Your task to perform on an android device: toggle javascript in the chrome app Image 0: 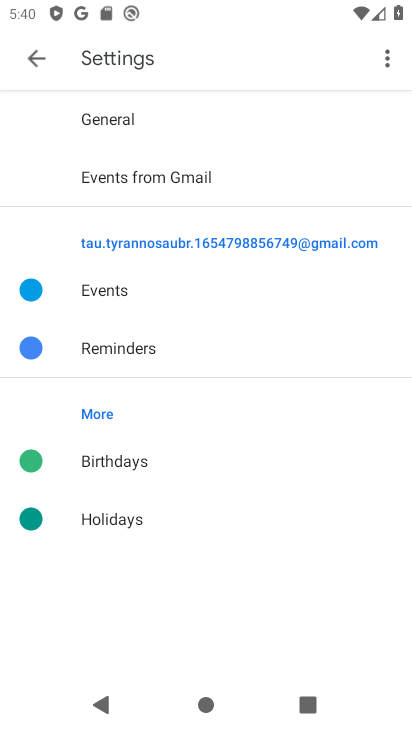
Step 0: press home button
Your task to perform on an android device: toggle javascript in the chrome app Image 1: 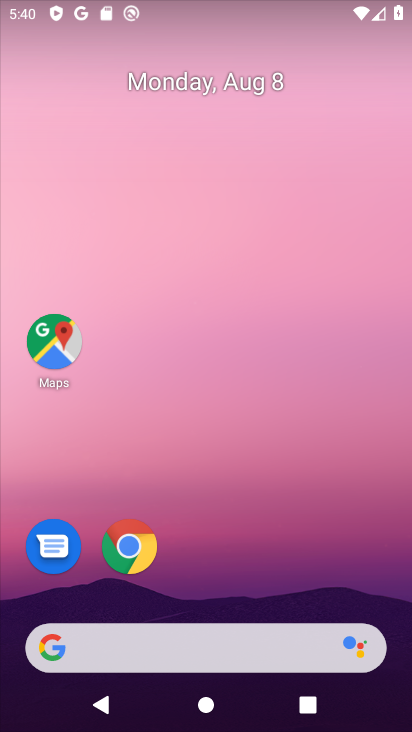
Step 1: click (147, 550)
Your task to perform on an android device: toggle javascript in the chrome app Image 2: 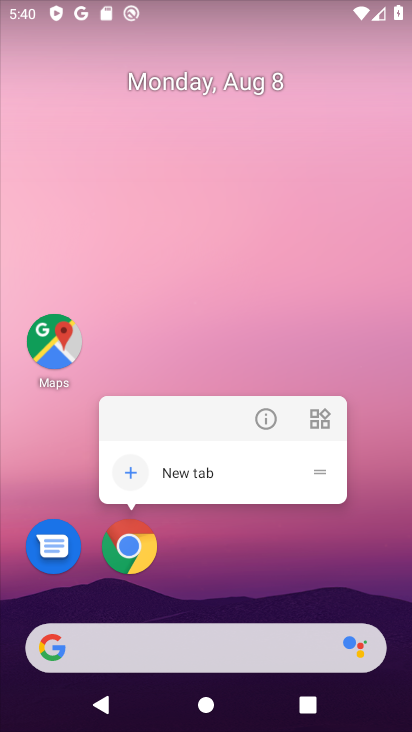
Step 2: click (147, 550)
Your task to perform on an android device: toggle javascript in the chrome app Image 3: 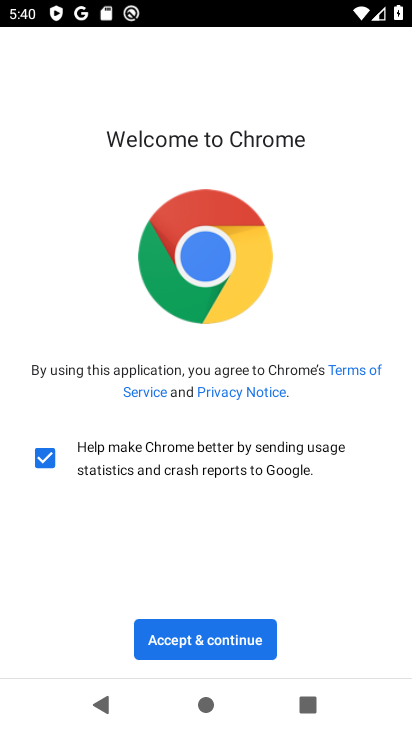
Step 3: click (207, 635)
Your task to perform on an android device: toggle javascript in the chrome app Image 4: 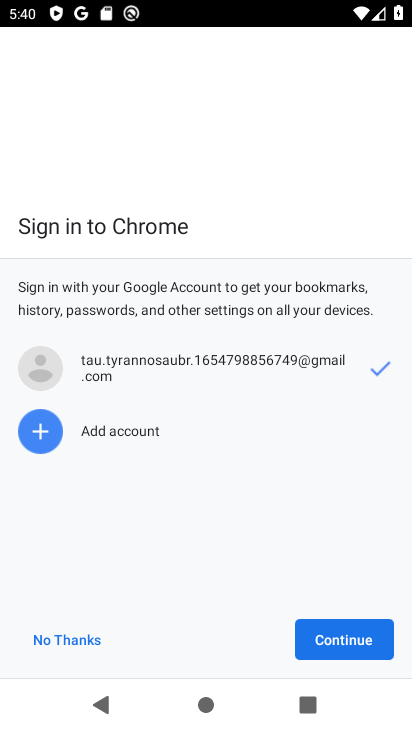
Step 4: click (337, 626)
Your task to perform on an android device: toggle javascript in the chrome app Image 5: 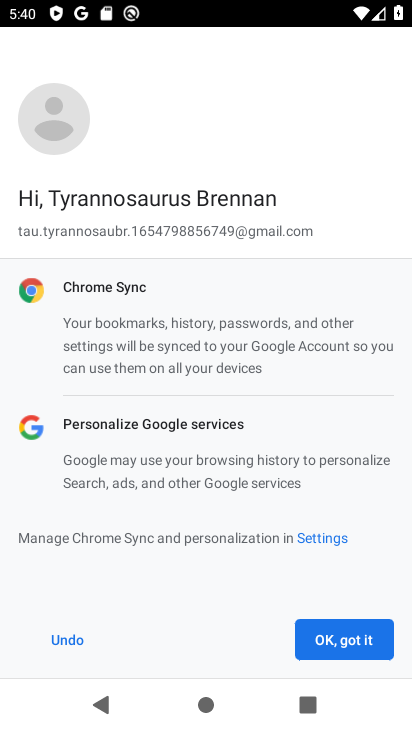
Step 5: click (346, 622)
Your task to perform on an android device: toggle javascript in the chrome app Image 6: 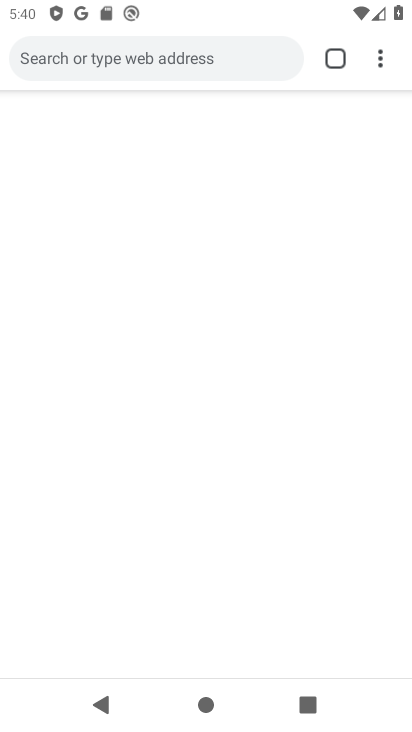
Step 6: click (372, 64)
Your task to perform on an android device: toggle javascript in the chrome app Image 7: 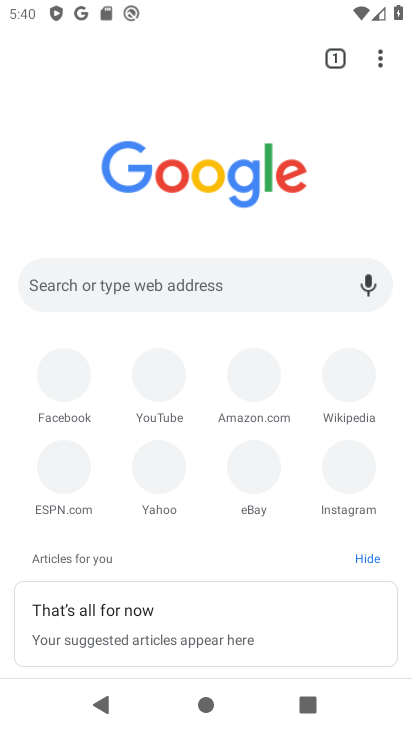
Step 7: click (380, 63)
Your task to perform on an android device: toggle javascript in the chrome app Image 8: 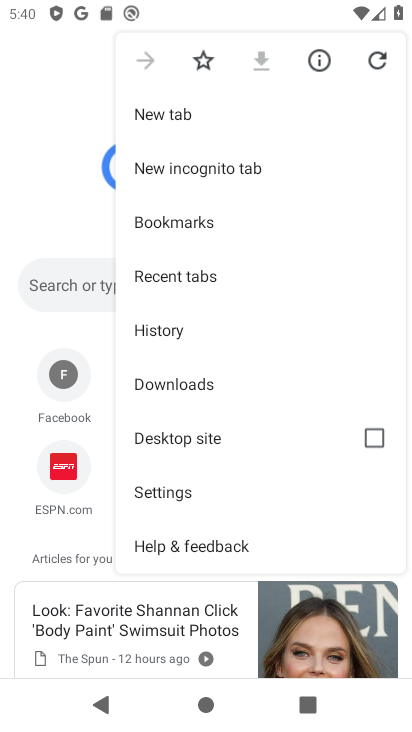
Step 8: click (161, 487)
Your task to perform on an android device: toggle javascript in the chrome app Image 9: 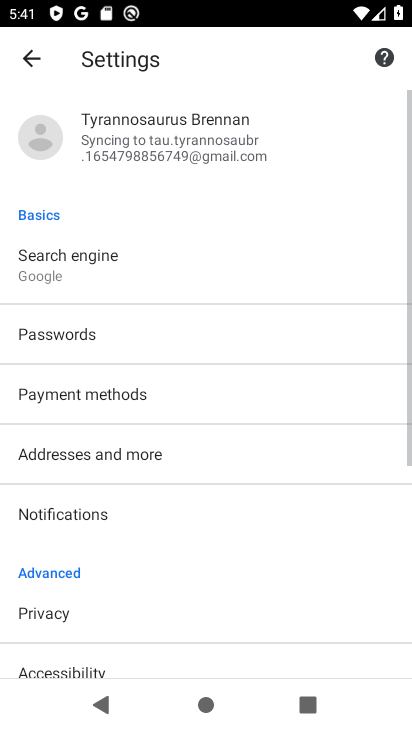
Step 9: click (197, 207)
Your task to perform on an android device: toggle javascript in the chrome app Image 10: 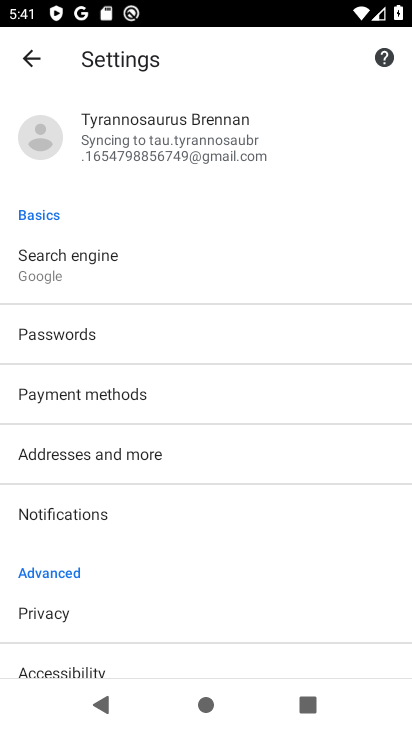
Step 10: drag from (177, 610) to (196, 203)
Your task to perform on an android device: toggle javascript in the chrome app Image 11: 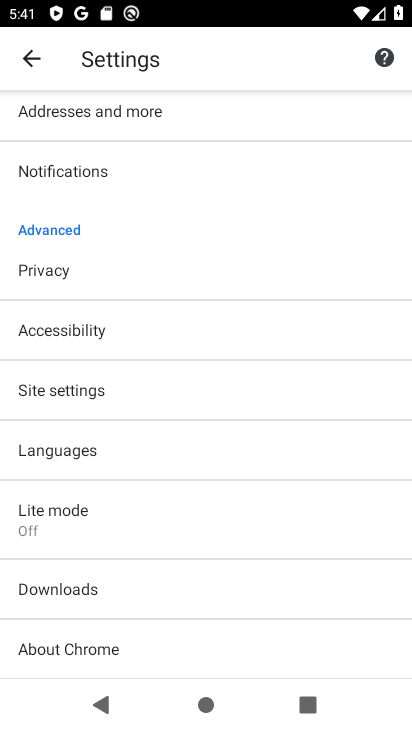
Step 11: click (85, 400)
Your task to perform on an android device: toggle javascript in the chrome app Image 12: 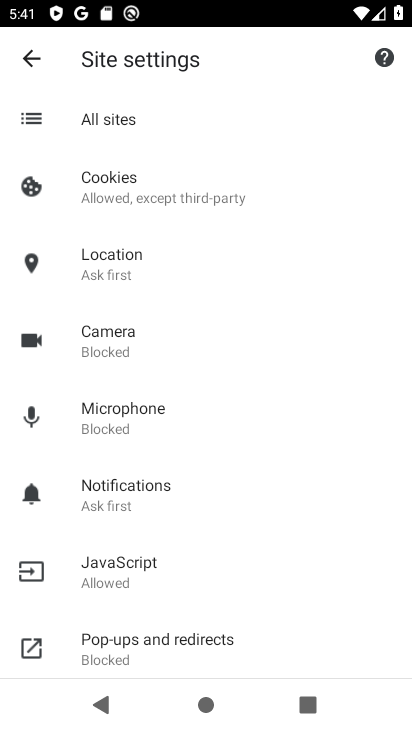
Step 12: click (137, 564)
Your task to perform on an android device: toggle javascript in the chrome app Image 13: 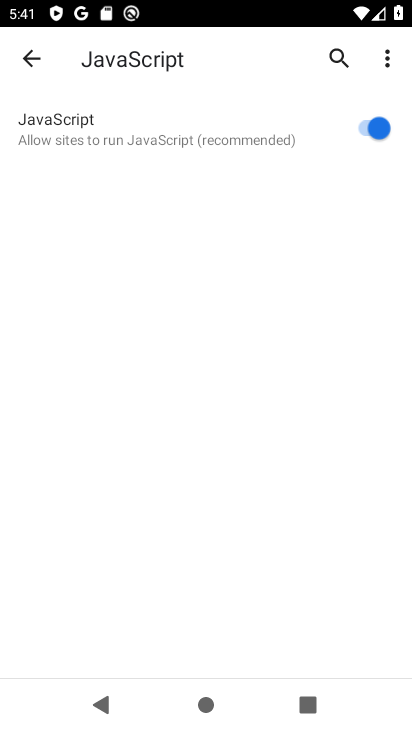
Step 13: click (363, 114)
Your task to perform on an android device: toggle javascript in the chrome app Image 14: 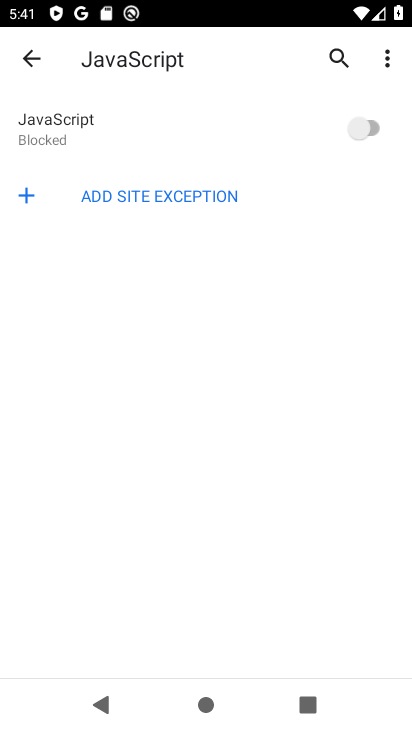
Step 14: task complete